Your task to perform on an android device: See recent photos Image 0: 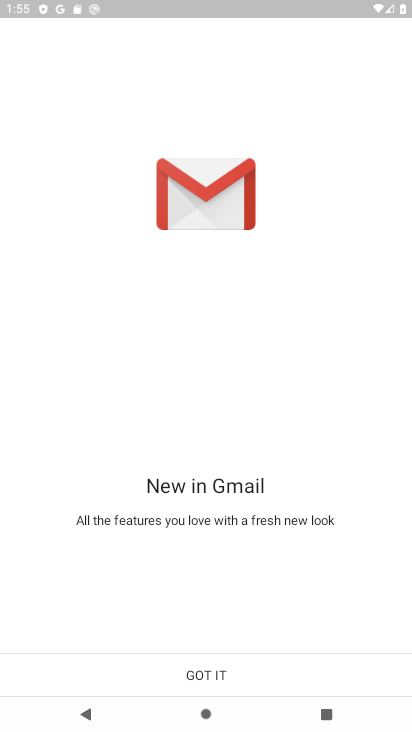
Step 0: press home button
Your task to perform on an android device: See recent photos Image 1: 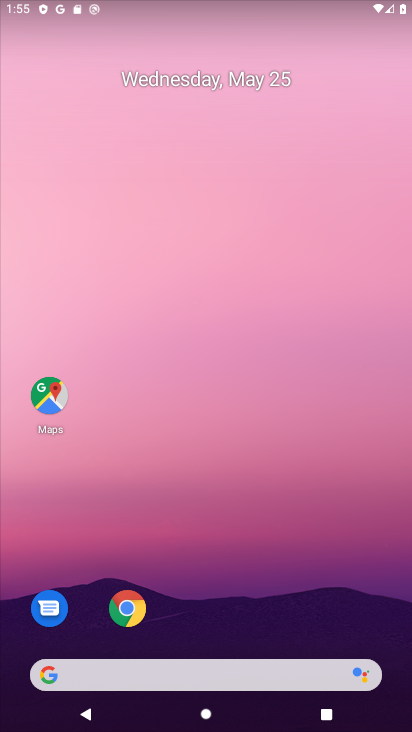
Step 1: drag from (235, 653) to (312, 136)
Your task to perform on an android device: See recent photos Image 2: 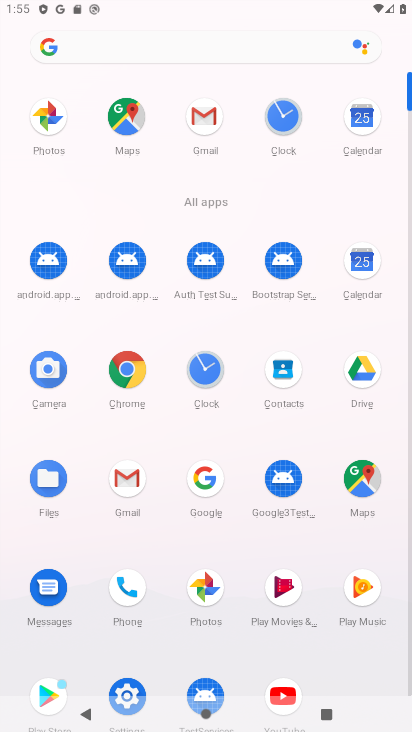
Step 2: click (40, 123)
Your task to perform on an android device: See recent photos Image 3: 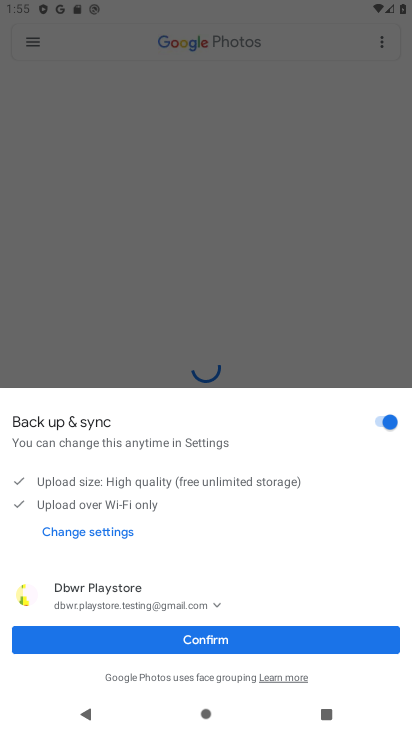
Step 3: click (209, 630)
Your task to perform on an android device: See recent photos Image 4: 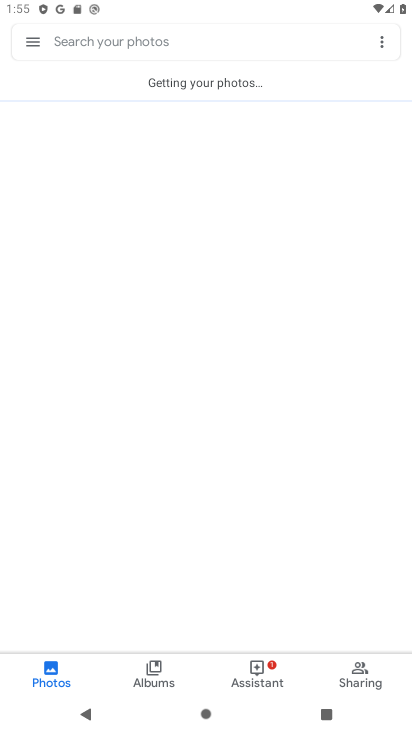
Step 4: task complete